Your task to perform on an android device: toggle translation in the chrome app Image 0: 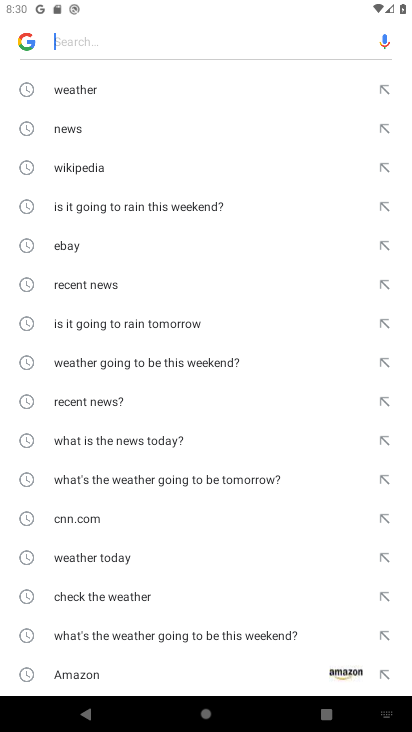
Step 0: press home button
Your task to perform on an android device: toggle translation in the chrome app Image 1: 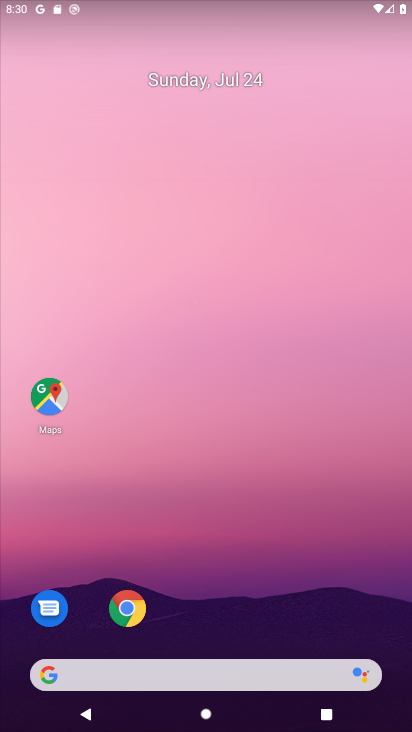
Step 1: click (131, 617)
Your task to perform on an android device: toggle translation in the chrome app Image 2: 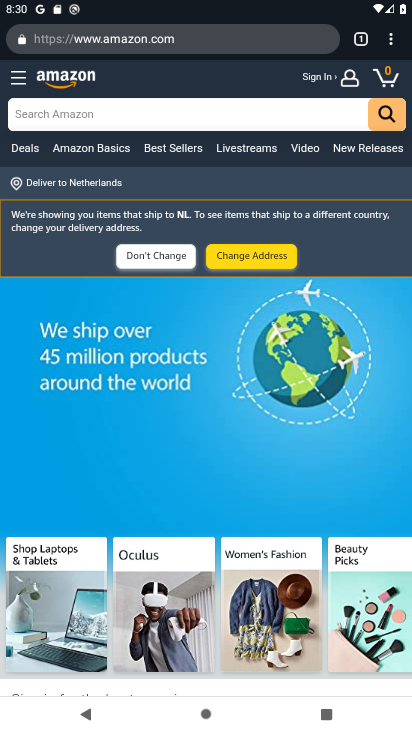
Step 2: click (398, 49)
Your task to perform on an android device: toggle translation in the chrome app Image 3: 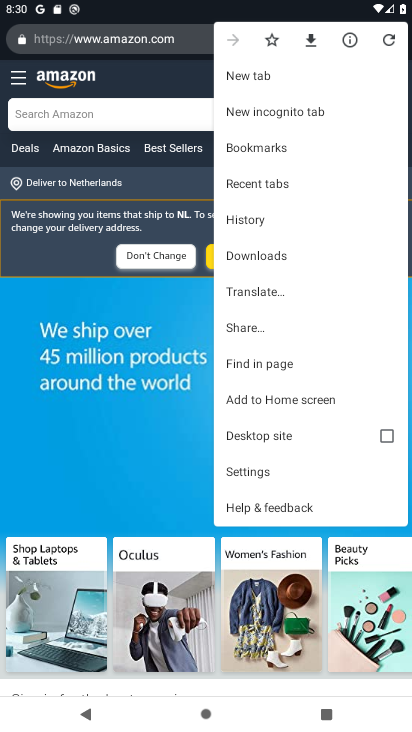
Step 3: click (239, 482)
Your task to perform on an android device: toggle translation in the chrome app Image 4: 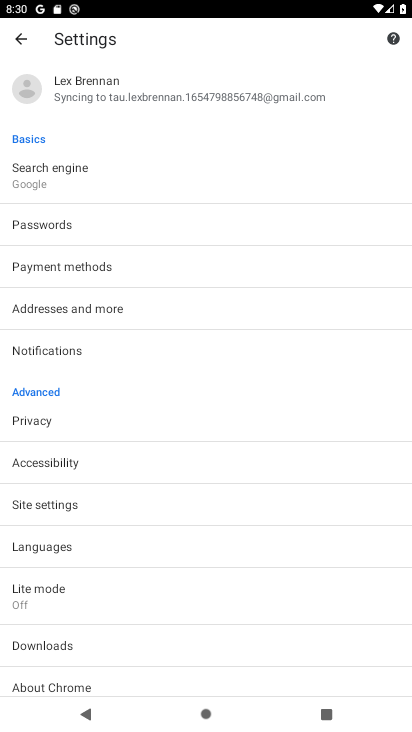
Step 4: click (118, 541)
Your task to perform on an android device: toggle translation in the chrome app Image 5: 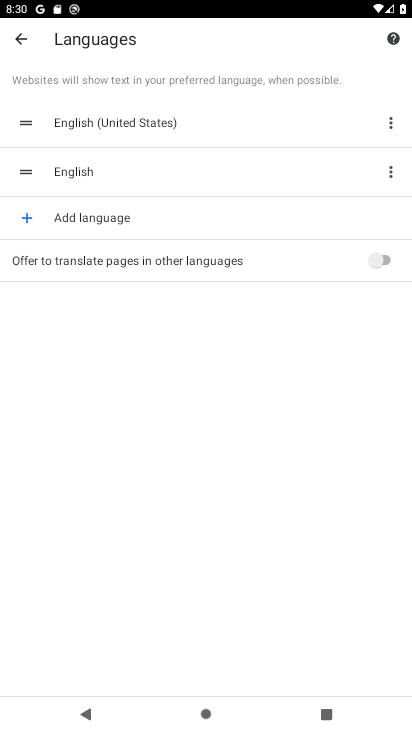
Step 5: click (390, 267)
Your task to perform on an android device: toggle translation in the chrome app Image 6: 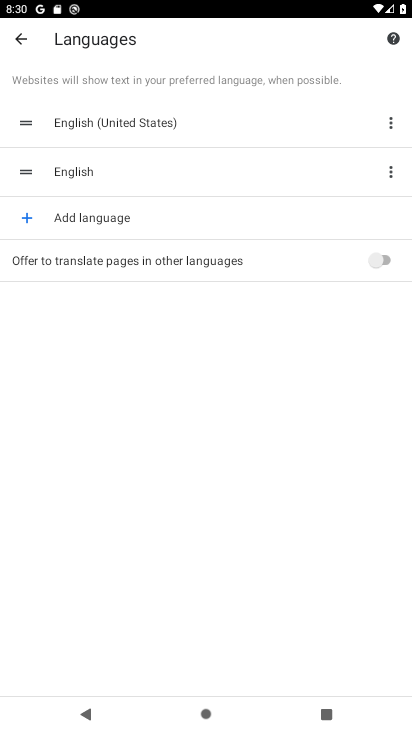
Step 6: click (390, 267)
Your task to perform on an android device: toggle translation in the chrome app Image 7: 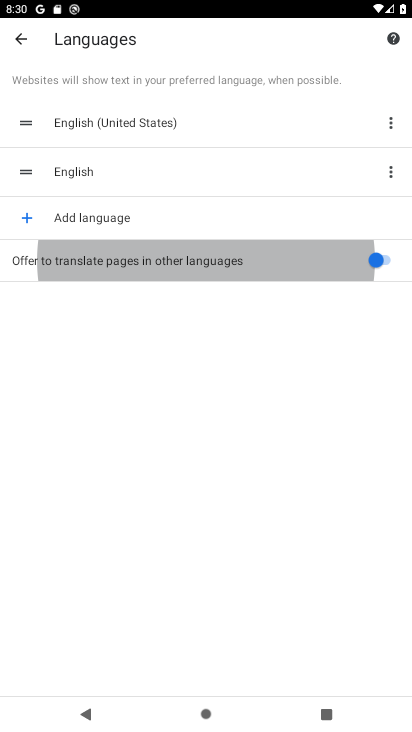
Step 7: click (390, 267)
Your task to perform on an android device: toggle translation in the chrome app Image 8: 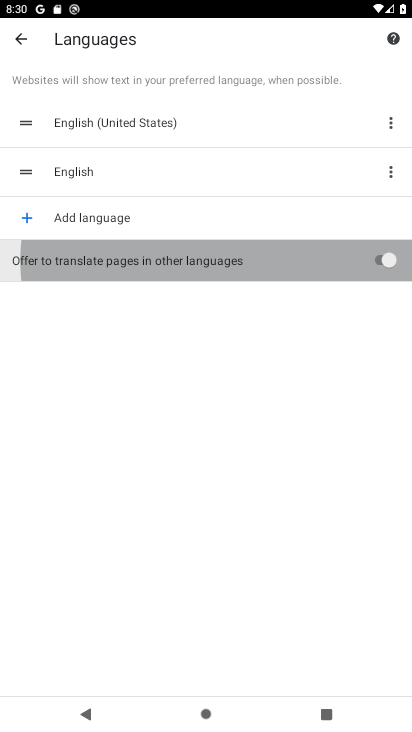
Step 8: click (390, 267)
Your task to perform on an android device: toggle translation in the chrome app Image 9: 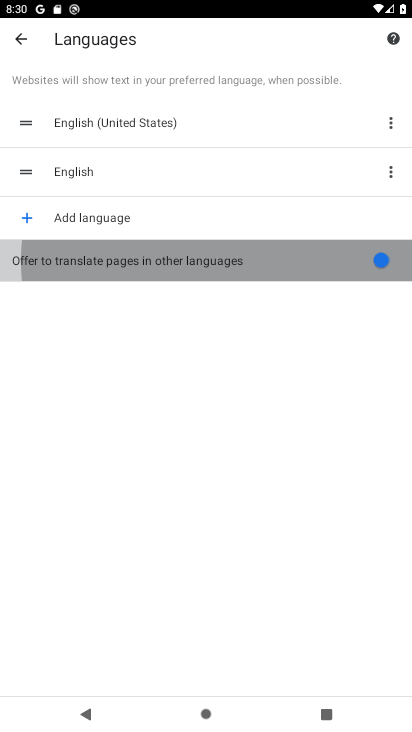
Step 9: click (390, 267)
Your task to perform on an android device: toggle translation in the chrome app Image 10: 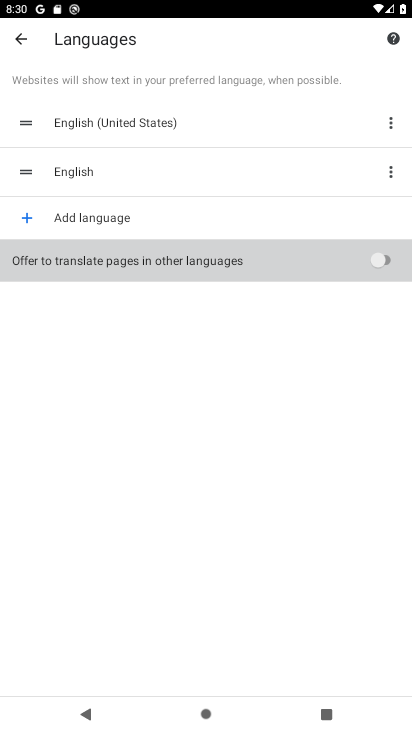
Step 10: click (390, 267)
Your task to perform on an android device: toggle translation in the chrome app Image 11: 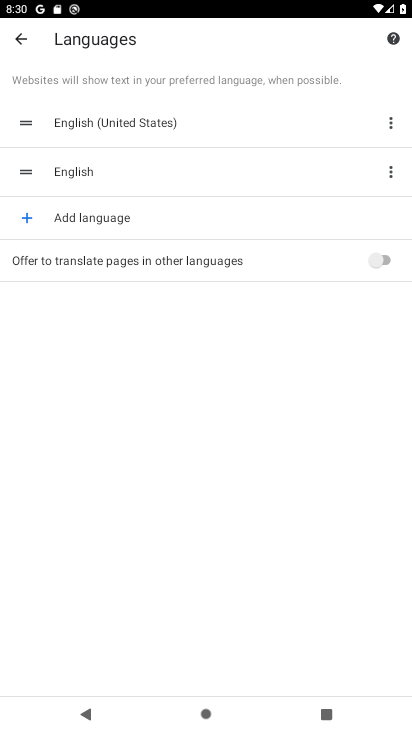
Step 11: click (390, 267)
Your task to perform on an android device: toggle translation in the chrome app Image 12: 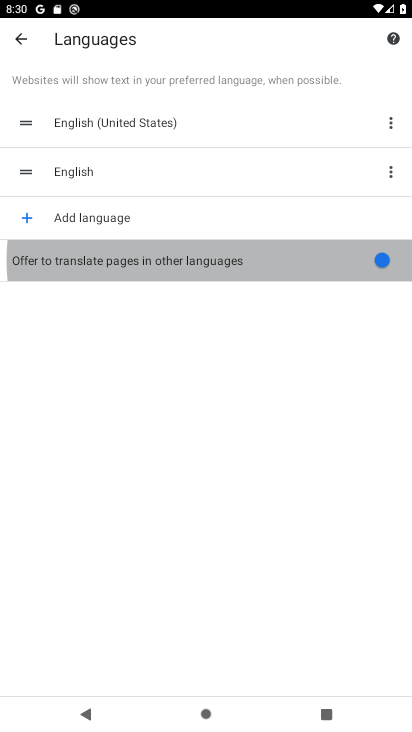
Step 12: click (390, 267)
Your task to perform on an android device: toggle translation in the chrome app Image 13: 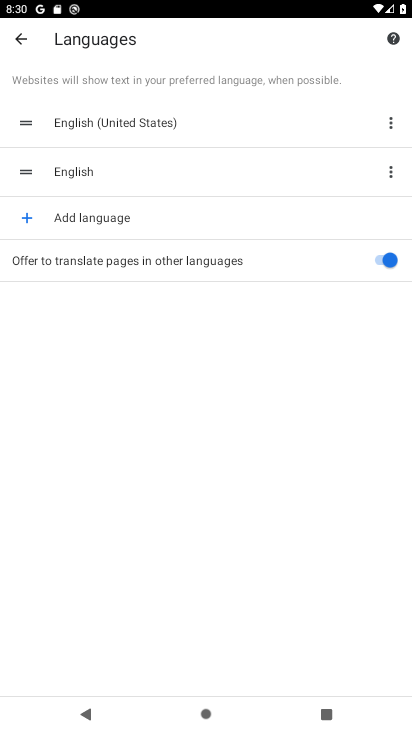
Step 13: click (390, 267)
Your task to perform on an android device: toggle translation in the chrome app Image 14: 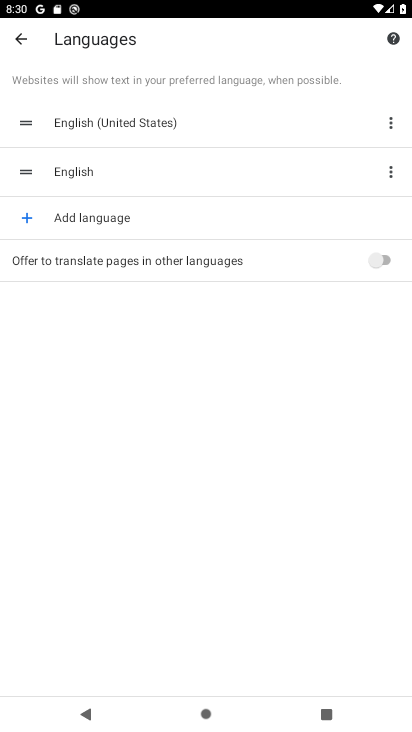
Step 14: task complete